Your task to perform on an android device: see tabs open on other devices in the chrome app Image 0: 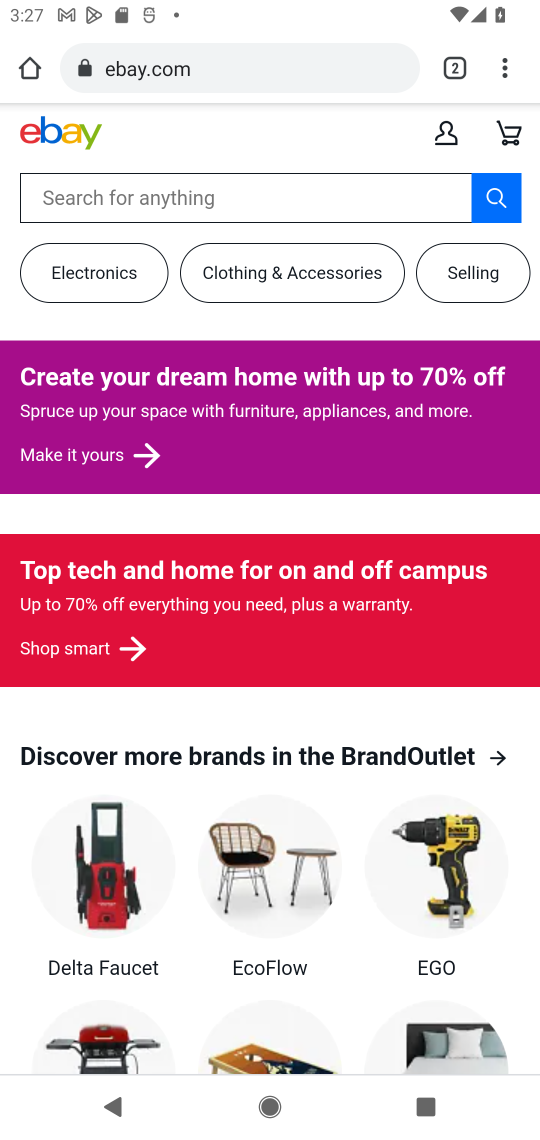
Step 0: press home button
Your task to perform on an android device: see tabs open on other devices in the chrome app Image 1: 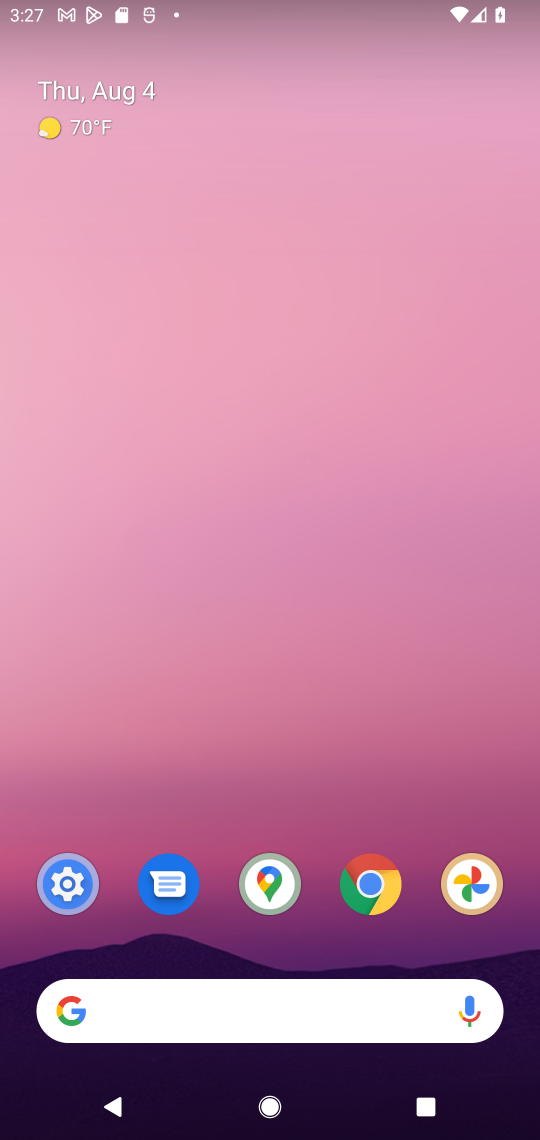
Step 1: click (374, 905)
Your task to perform on an android device: see tabs open on other devices in the chrome app Image 2: 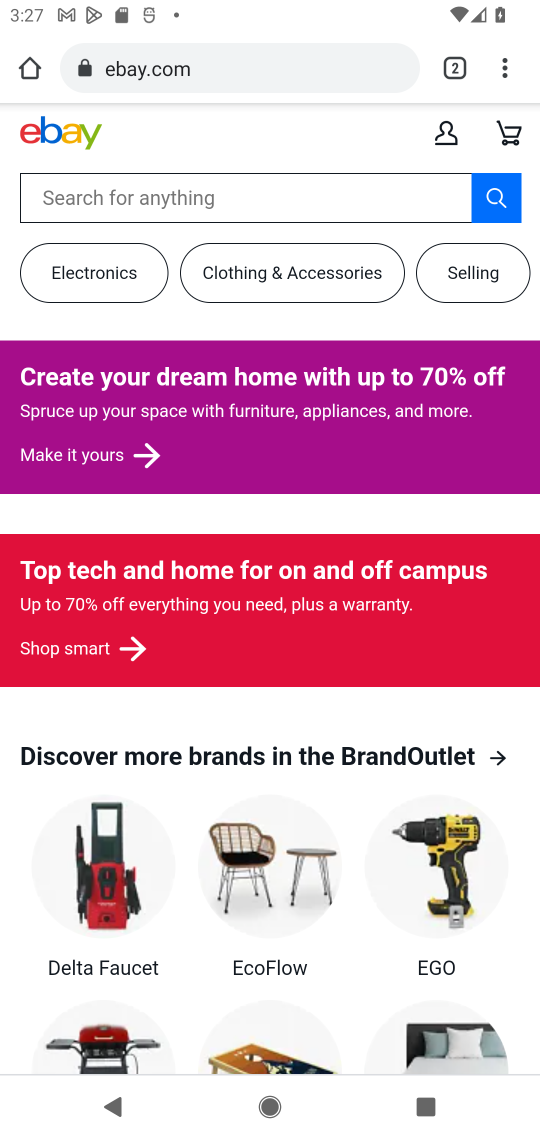
Step 2: click (514, 73)
Your task to perform on an android device: see tabs open on other devices in the chrome app Image 3: 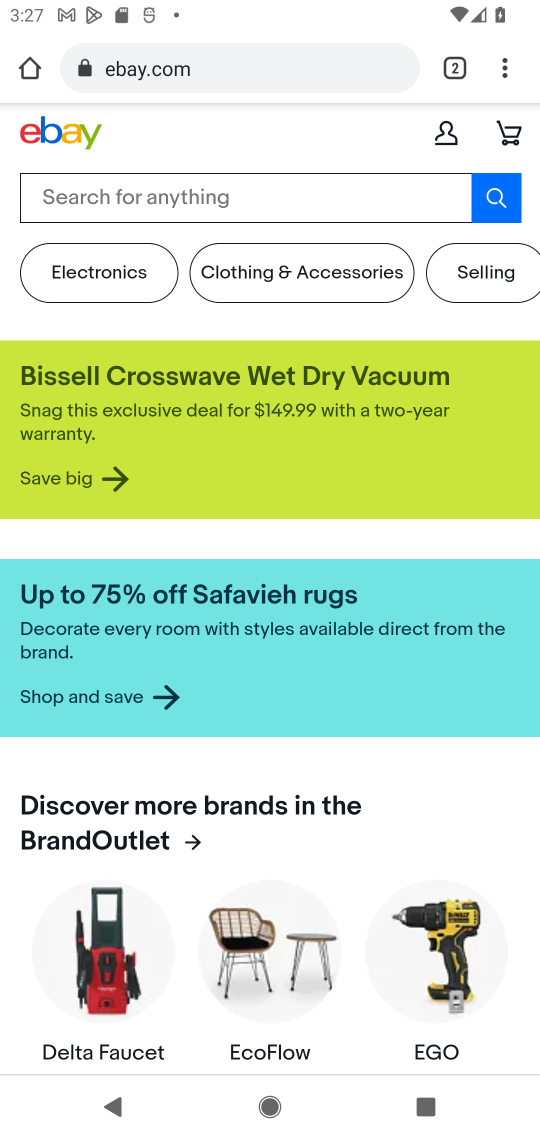
Step 3: click (503, 66)
Your task to perform on an android device: see tabs open on other devices in the chrome app Image 4: 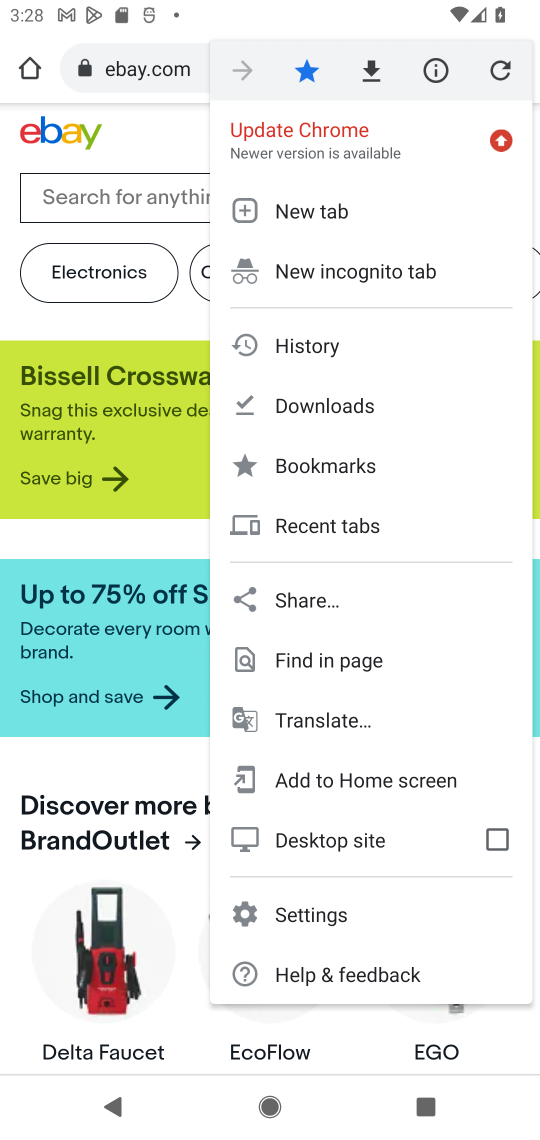
Step 4: click (309, 543)
Your task to perform on an android device: see tabs open on other devices in the chrome app Image 5: 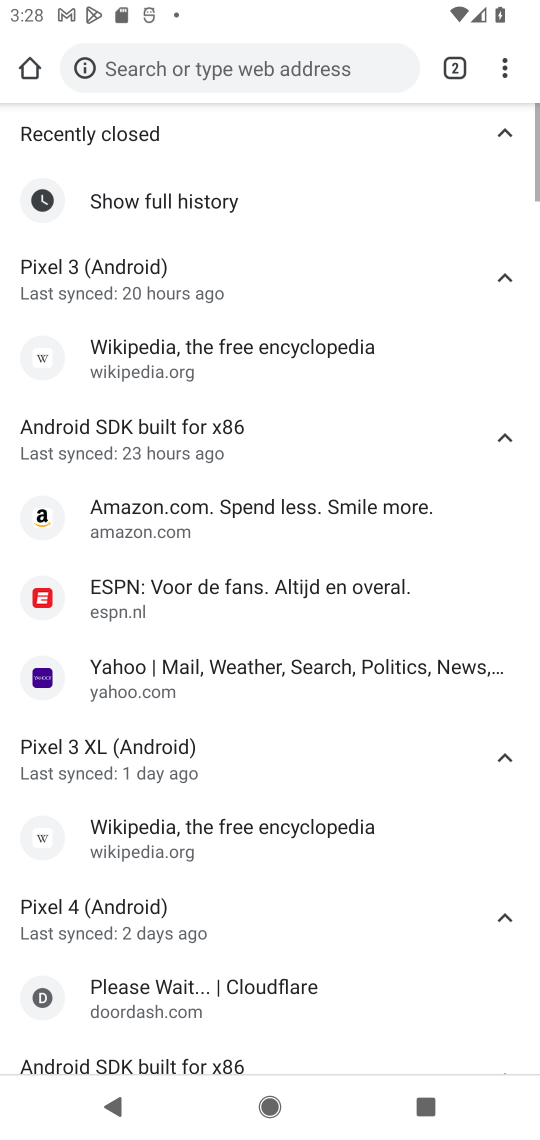
Step 5: task complete